Your task to perform on an android device: What's the weather going to be tomorrow? Image 0: 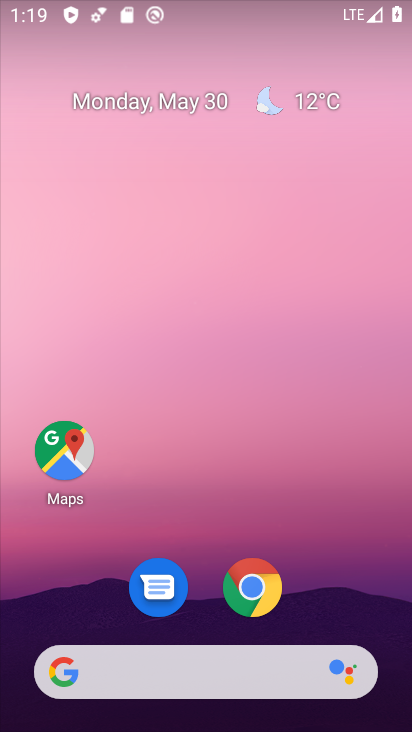
Step 0: click (312, 99)
Your task to perform on an android device: What's the weather going to be tomorrow? Image 1: 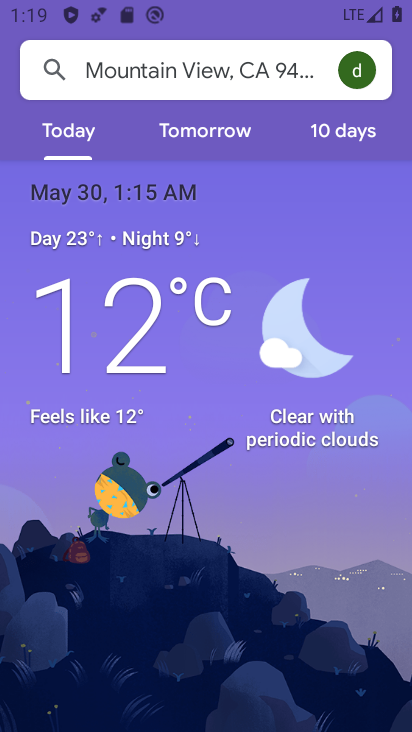
Step 1: click (219, 137)
Your task to perform on an android device: What's the weather going to be tomorrow? Image 2: 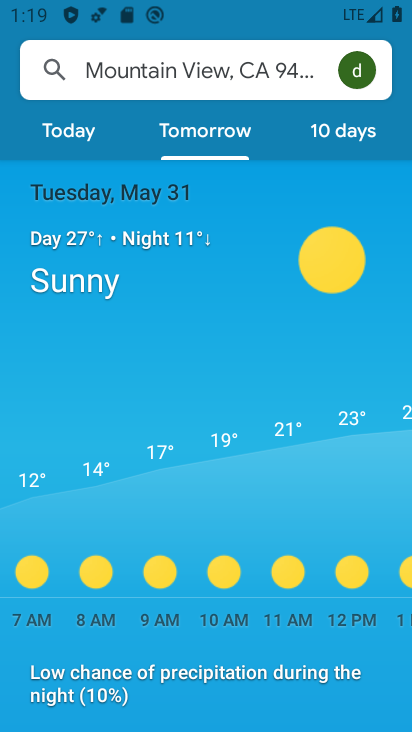
Step 2: task complete